Your task to perform on an android device: Go to battery settings Image 0: 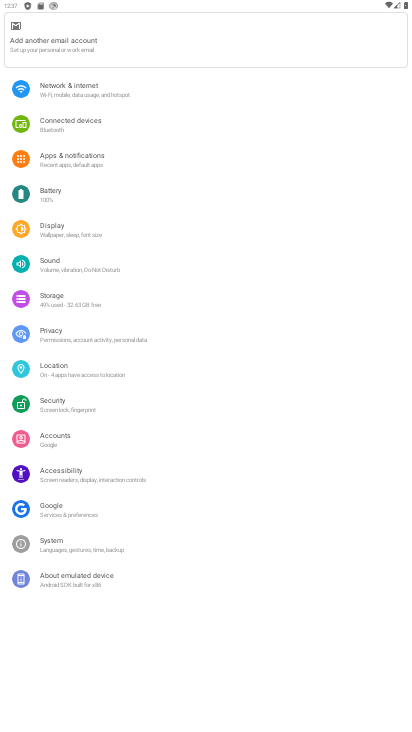
Step 0: click (64, 196)
Your task to perform on an android device: Go to battery settings Image 1: 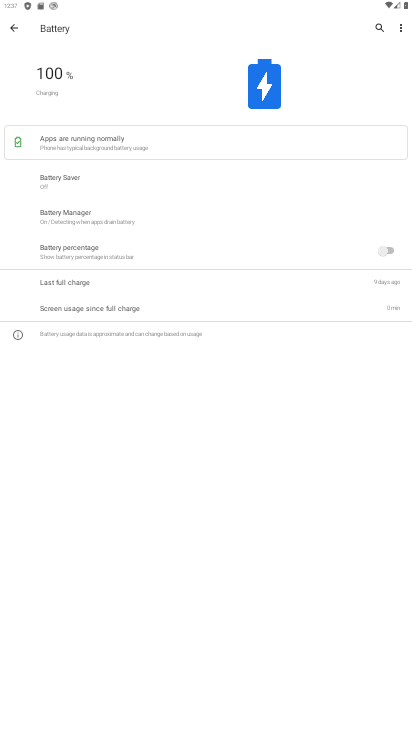
Step 1: click (397, 26)
Your task to perform on an android device: Go to battery settings Image 2: 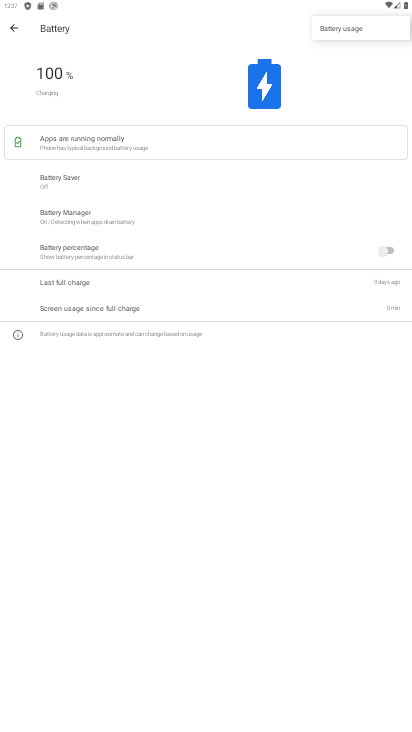
Step 2: click (146, 479)
Your task to perform on an android device: Go to battery settings Image 3: 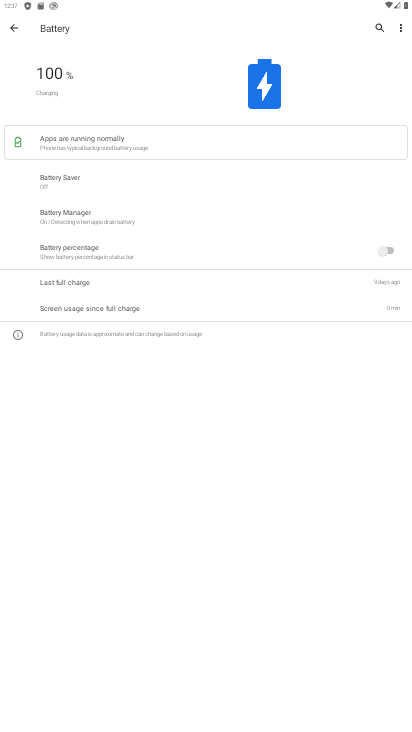
Step 3: task complete